Your task to perform on an android device: Open my contact list Image 0: 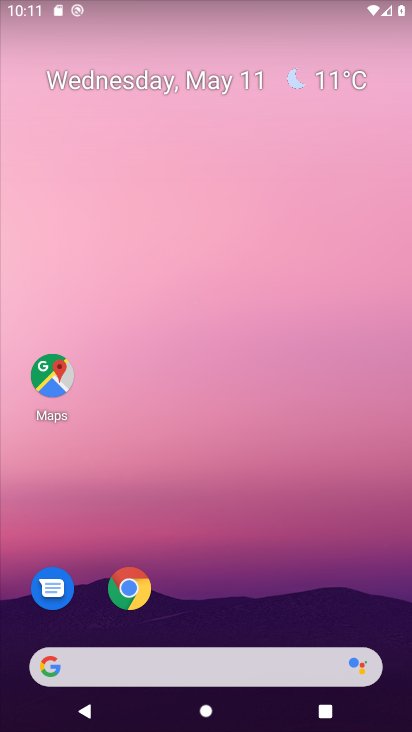
Step 0: drag from (208, 559) to (211, 83)
Your task to perform on an android device: Open my contact list Image 1: 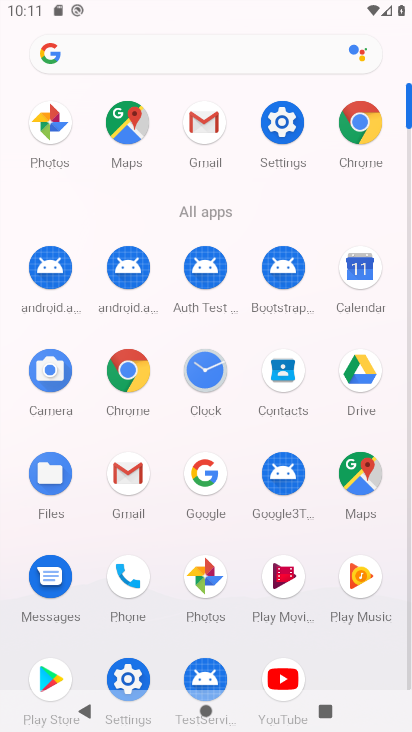
Step 1: click (119, 591)
Your task to perform on an android device: Open my contact list Image 2: 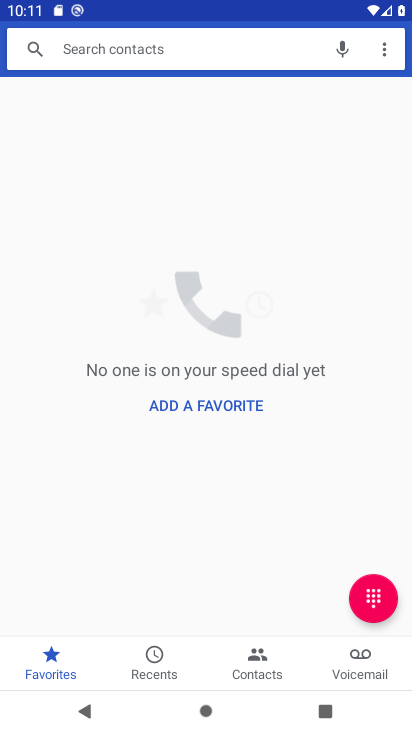
Step 2: click (250, 665)
Your task to perform on an android device: Open my contact list Image 3: 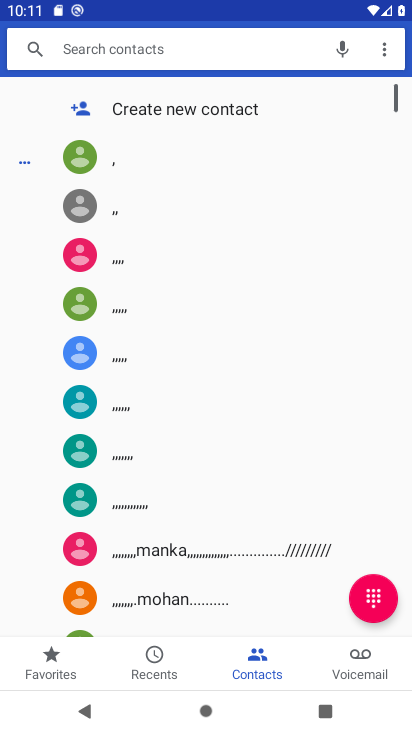
Step 3: task complete